Your task to perform on an android device: Show the shopping cart on newegg.com. Add "razer kraken" to the cart on newegg.com, then select checkout. Image 0: 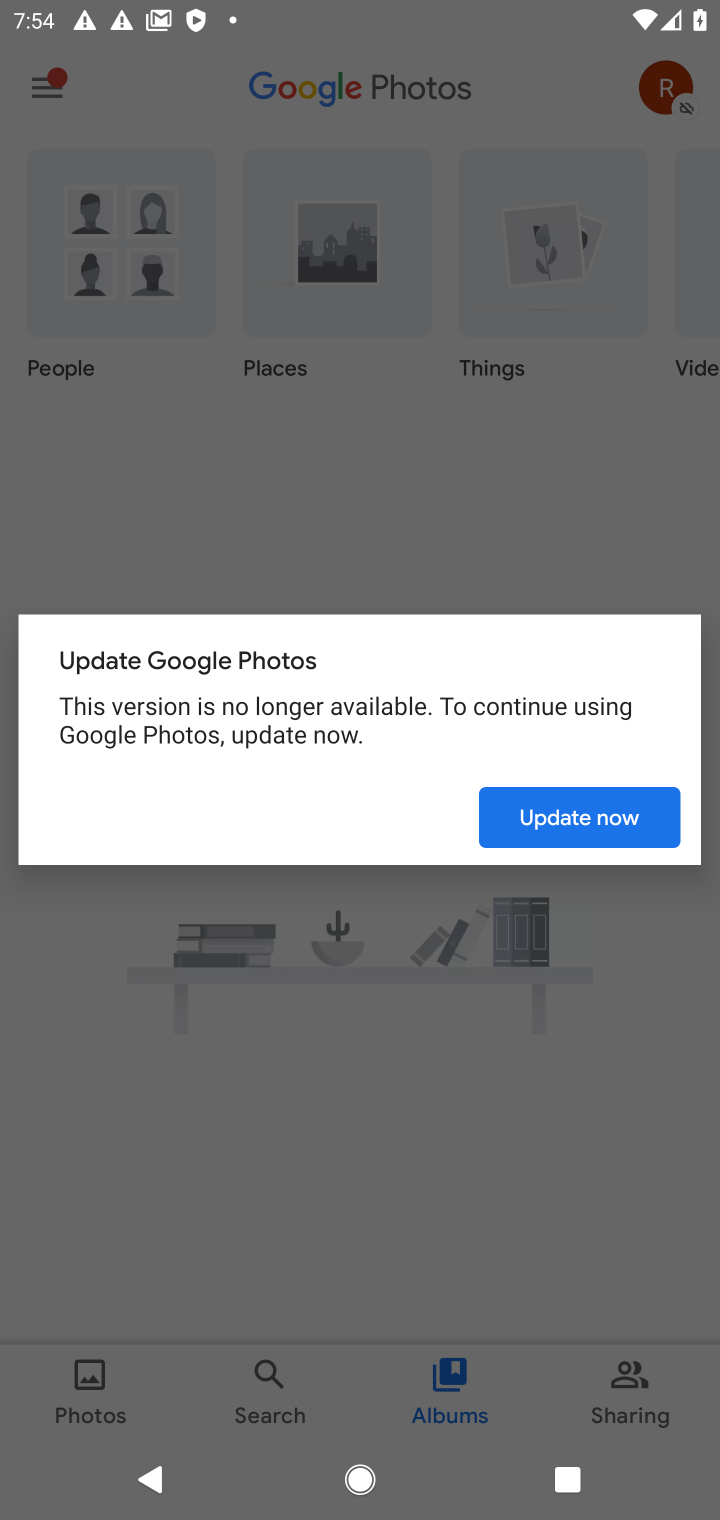
Step 0: press home button
Your task to perform on an android device: Show the shopping cart on newegg.com. Add "razer kraken" to the cart on newegg.com, then select checkout. Image 1: 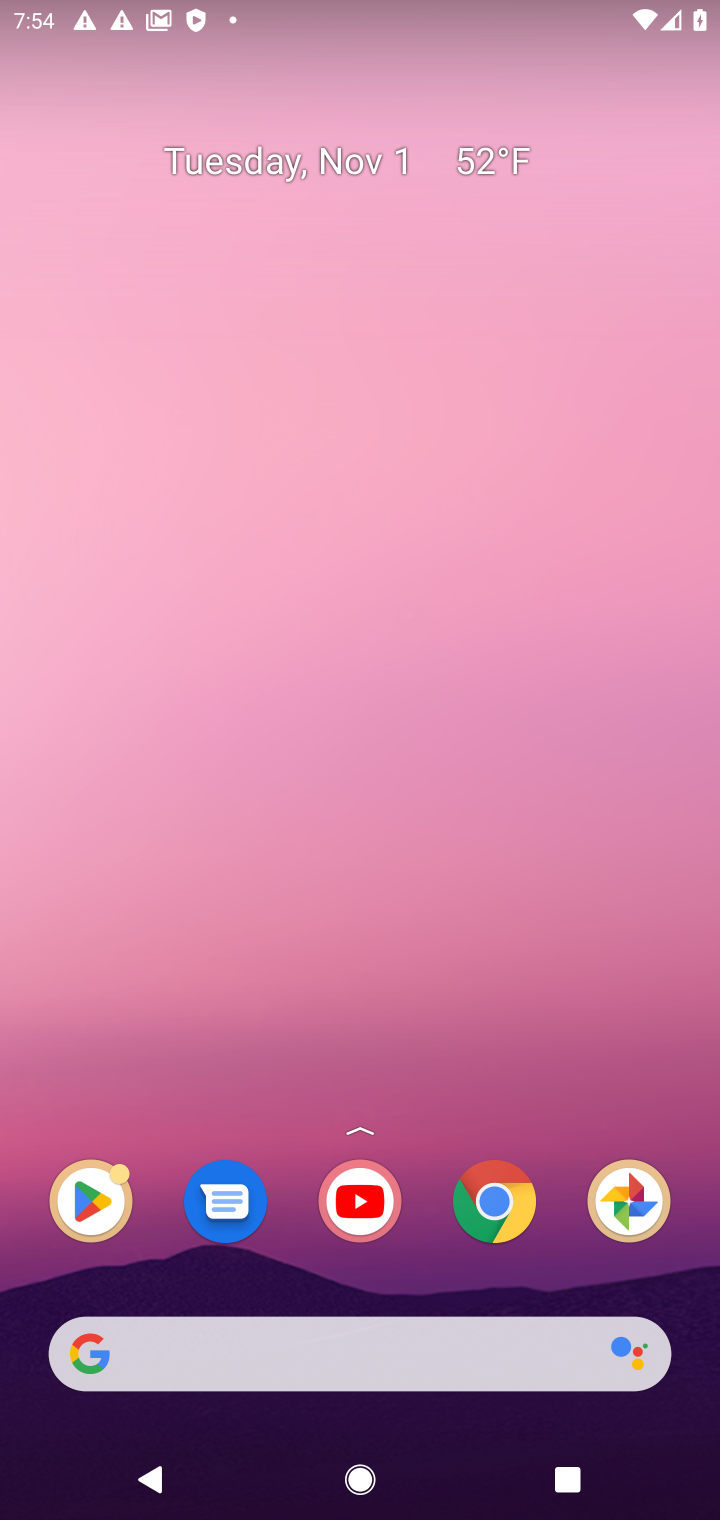
Step 1: click (299, 1372)
Your task to perform on an android device: Show the shopping cart on newegg.com. Add "razer kraken" to the cart on newegg.com, then select checkout. Image 2: 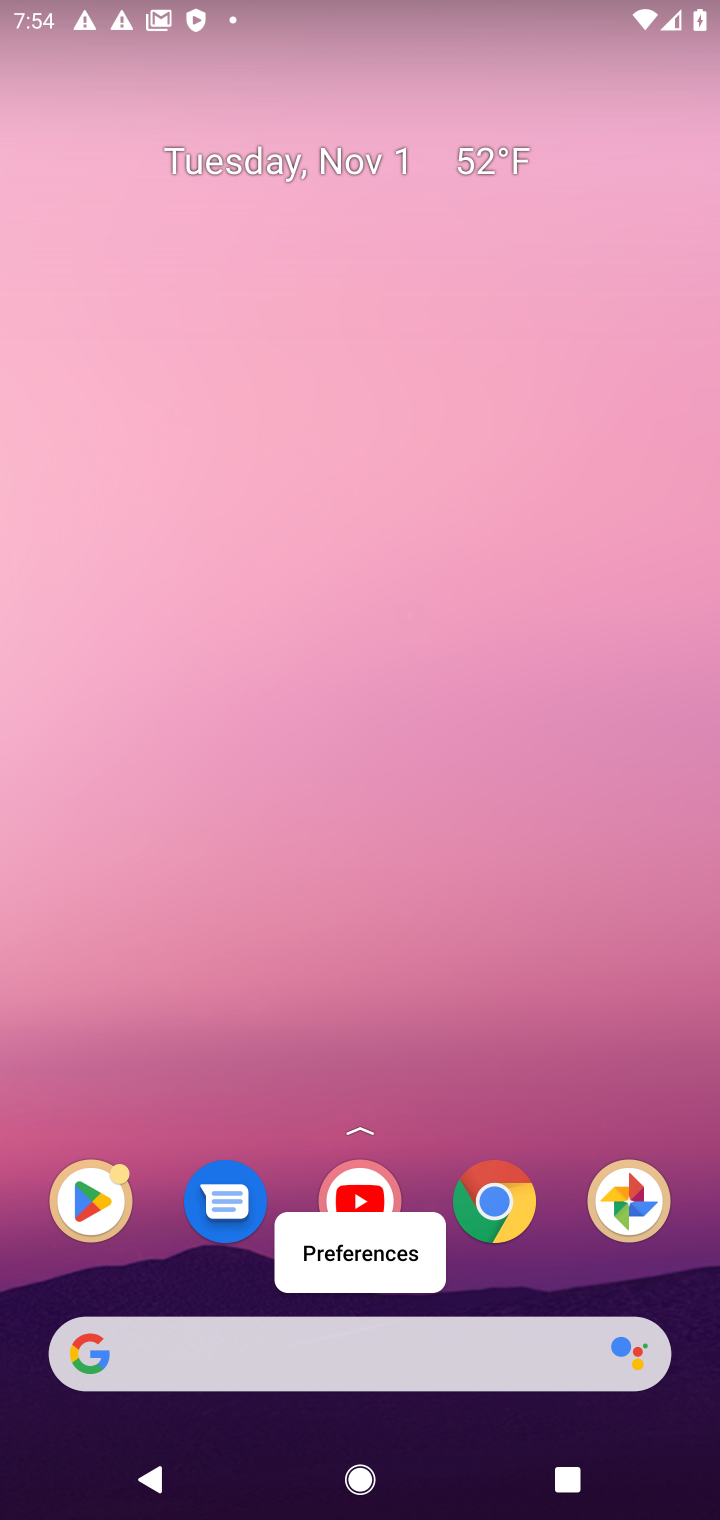
Step 2: click (539, 1365)
Your task to perform on an android device: Show the shopping cart on newegg.com. Add "razer kraken" to the cart on newegg.com, then select checkout. Image 3: 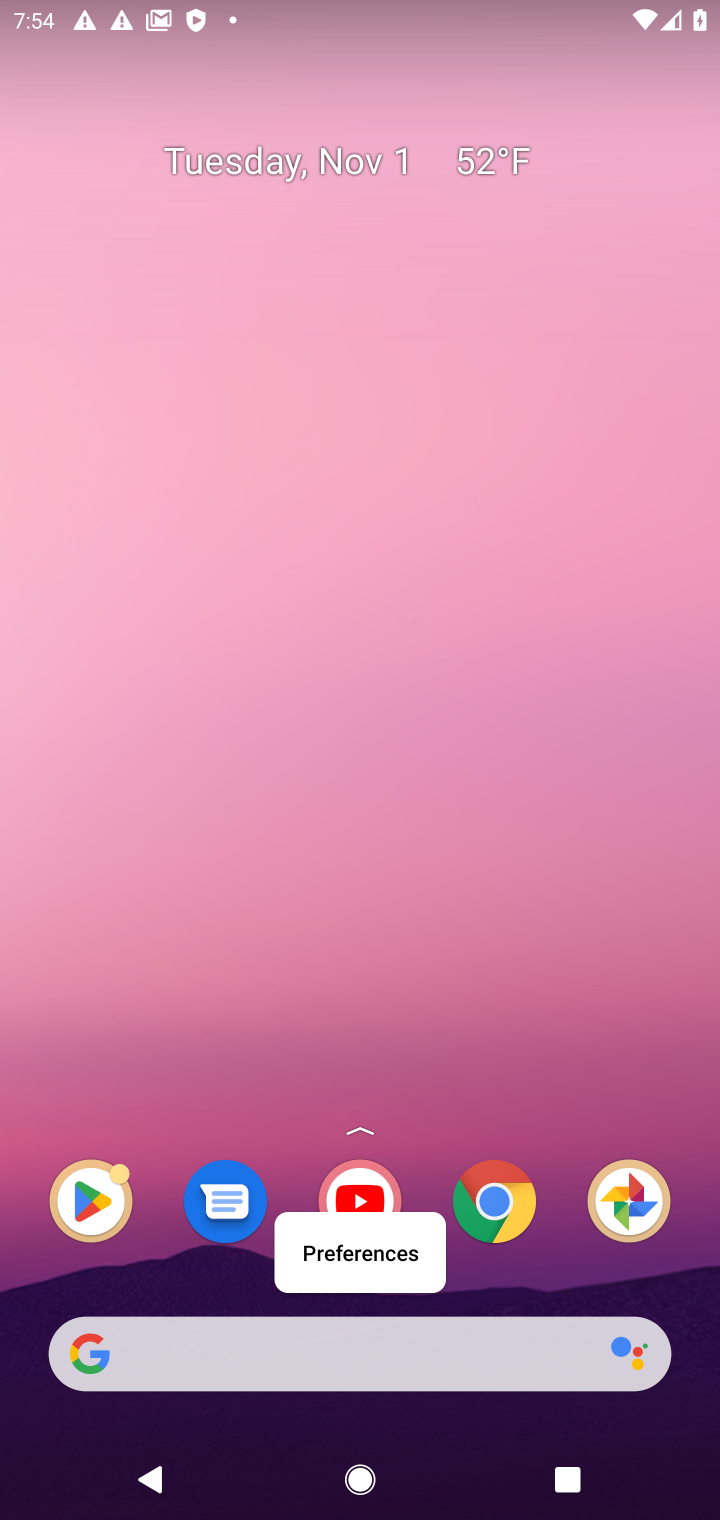
Step 3: click (489, 1202)
Your task to perform on an android device: Show the shopping cart on newegg.com. Add "razer kraken" to the cart on newegg.com, then select checkout. Image 4: 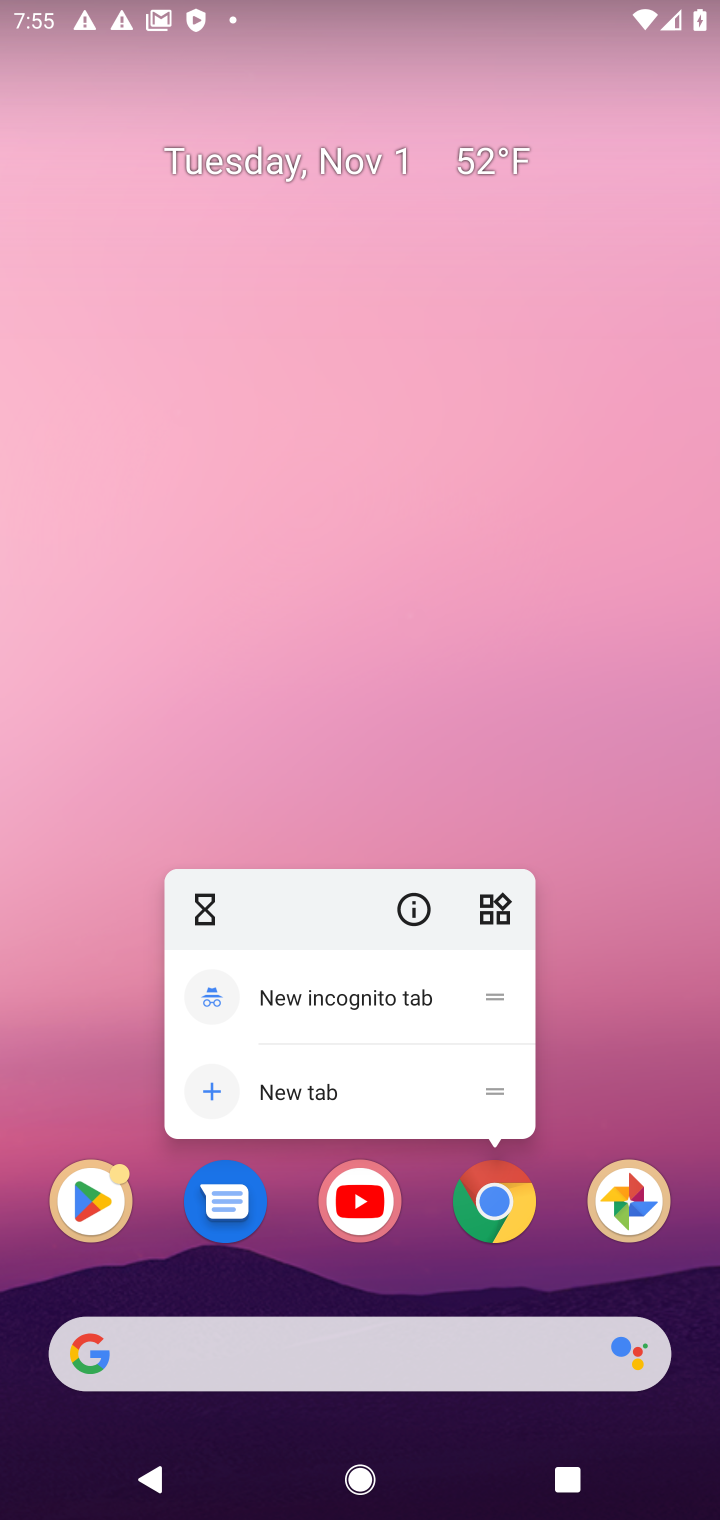
Step 4: click (489, 1202)
Your task to perform on an android device: Show the shopping cart on newegg.com. Add "razer kraken" to the cart on newegg.com, then select checkout. Image 5: 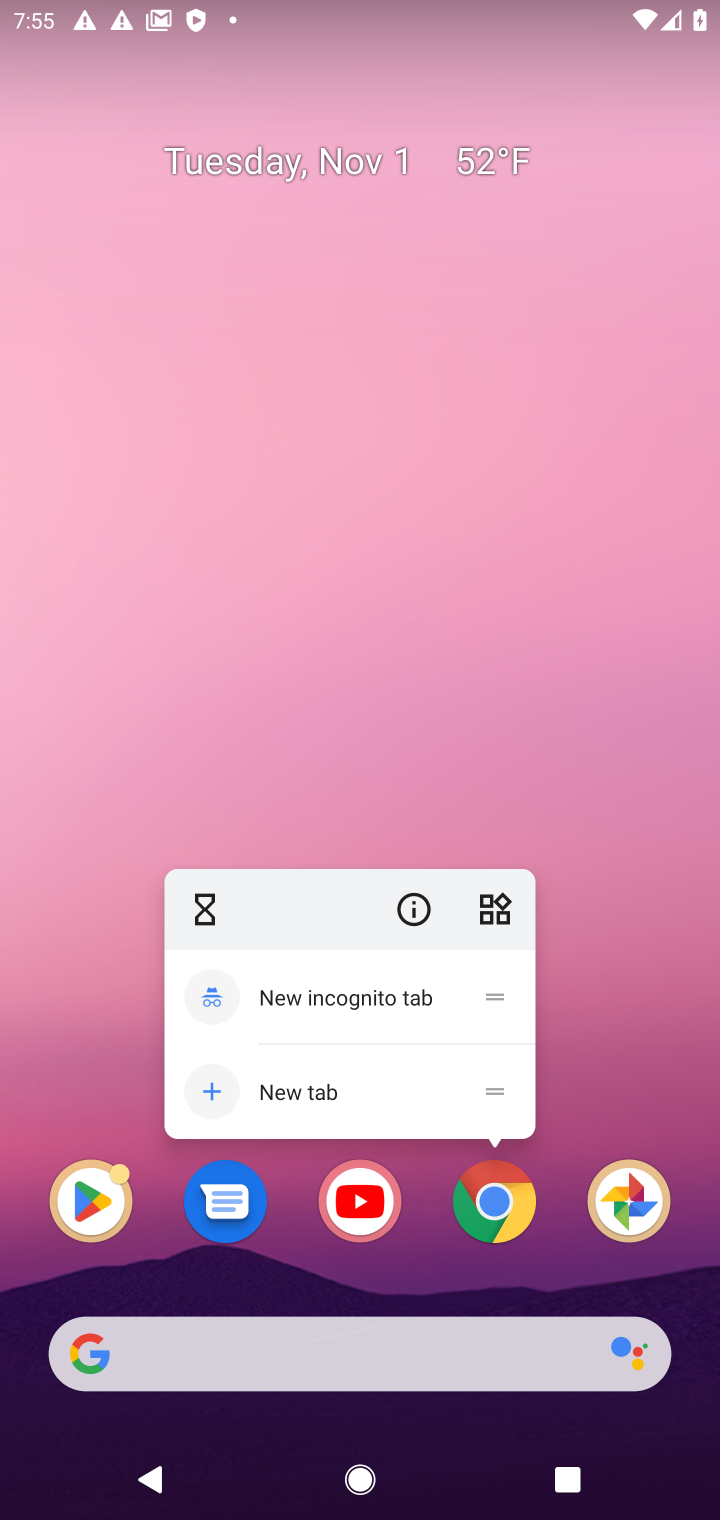
Step 5: click (499, 1212)
Your task to perform on an android device: Show the shopping cart on newegg.com. Add "razer kraken" to the cart on newegg.com, then select checkout. Image 6: 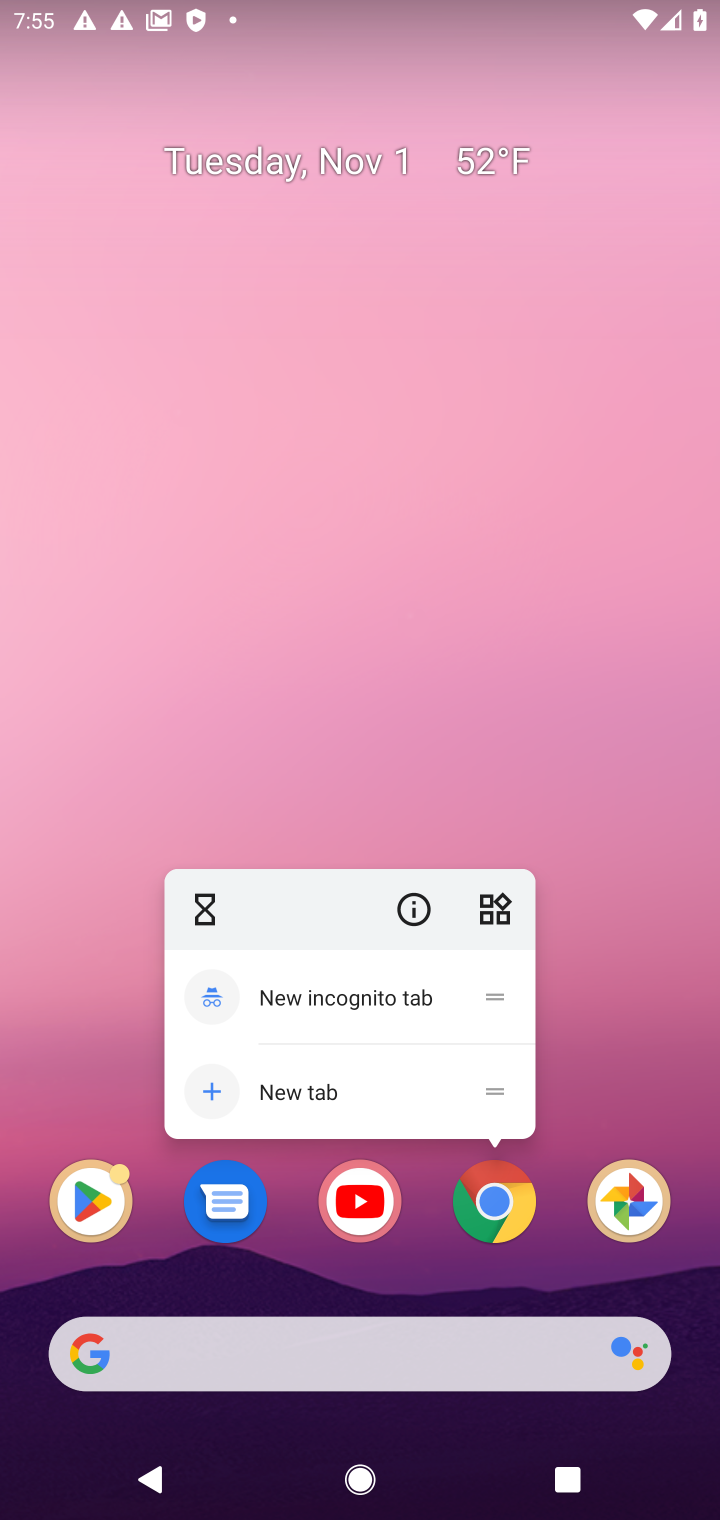
Step 6: click (481, 1210)
Your task to perform on an android device: Show the shopping cart on newegg.com. Add "razer kraken" to the cart on newegg.com, then select checkout. Image 7: 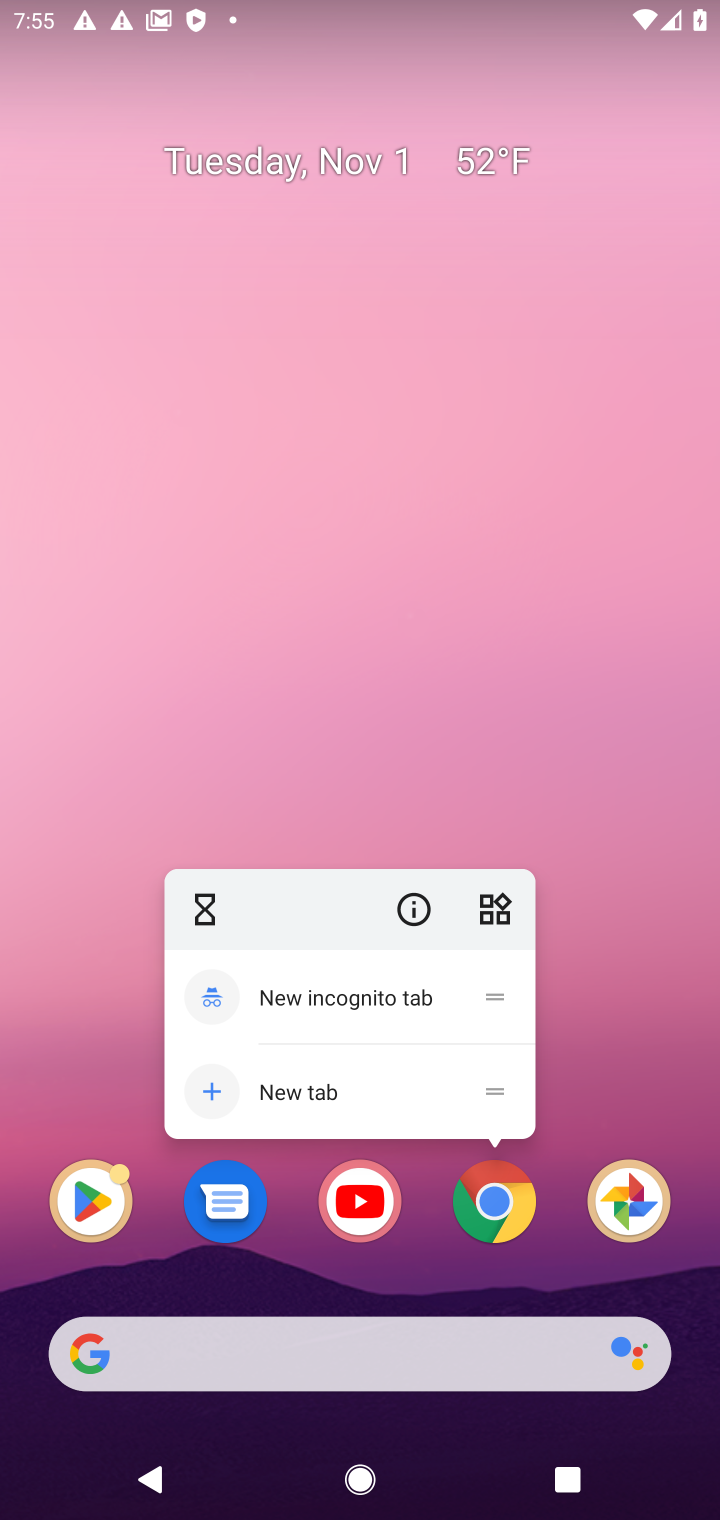
Step 7: click (481, 1207)
Your task to perform on an android device: Show the shopping cart on newegg.com. Add "razer kraken" to the cart on newegg.com, then select checkout. Image 8: 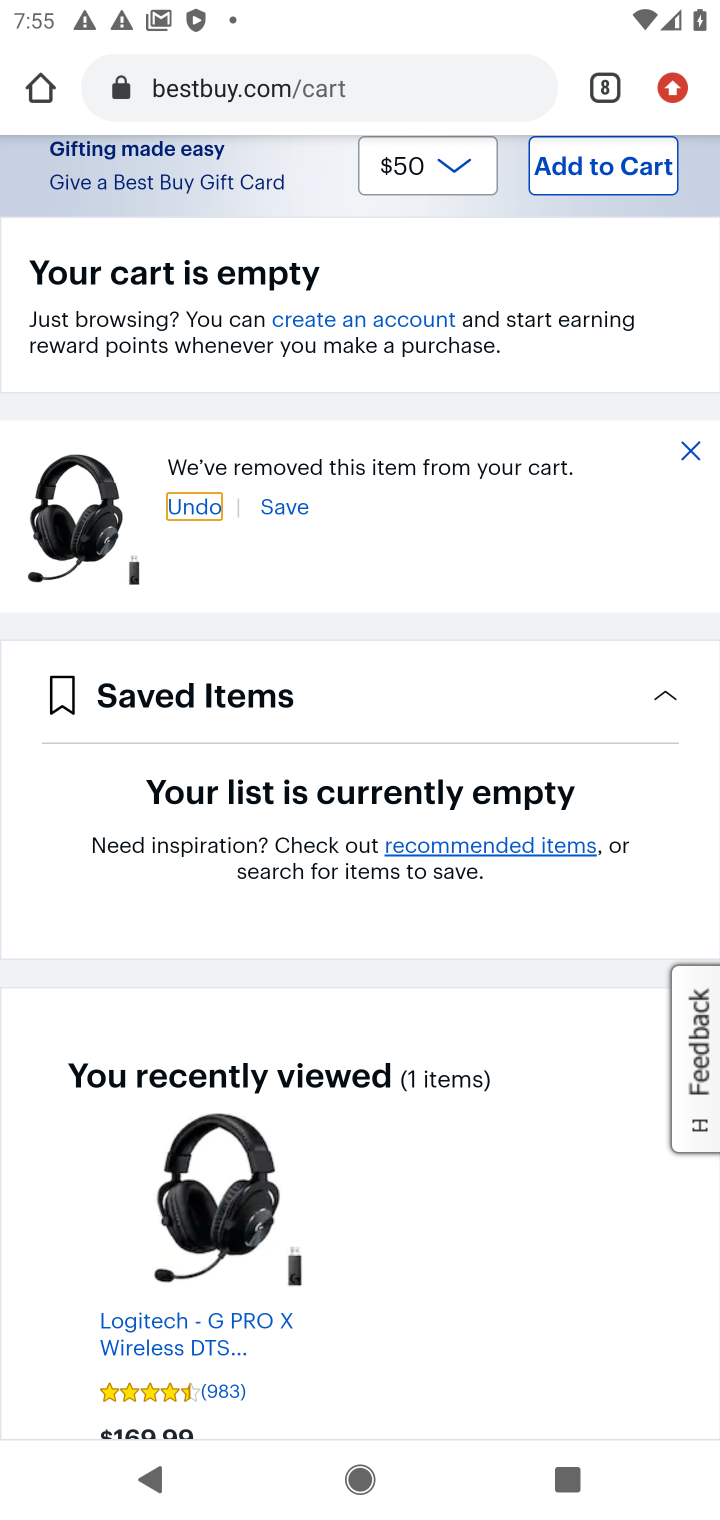
Step 8: click (278, 93)
Your task to perform on an android device: Show the shopping cart on newegg.com. Add "razer kraken" to the cart on newegg.com, then select checkout. Image 9: 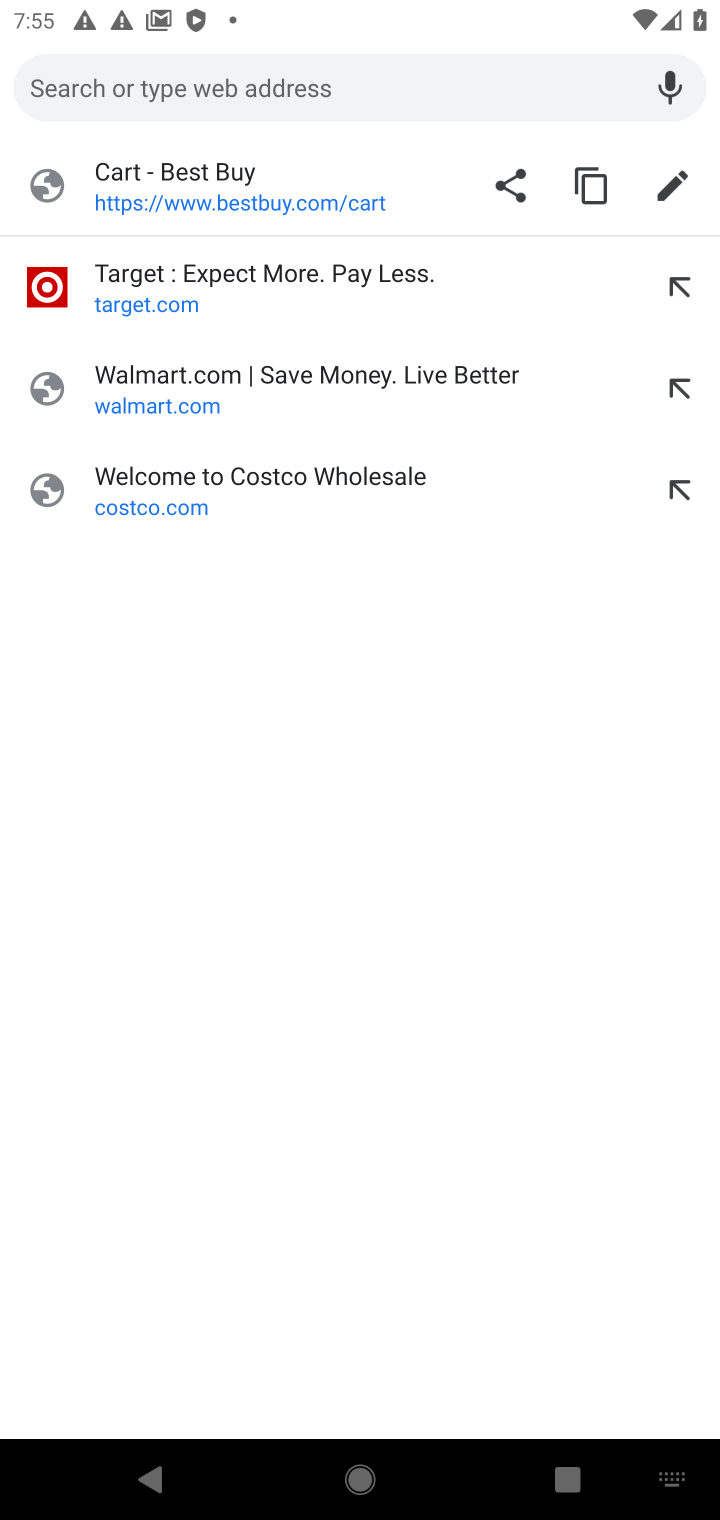
Step 9: type "newegg.com"
Your task to perform on an android device: Show the shopping cart on newegg.com. Add "razer kraken" to the cart on newegg.com, then select checkout. Image 10: 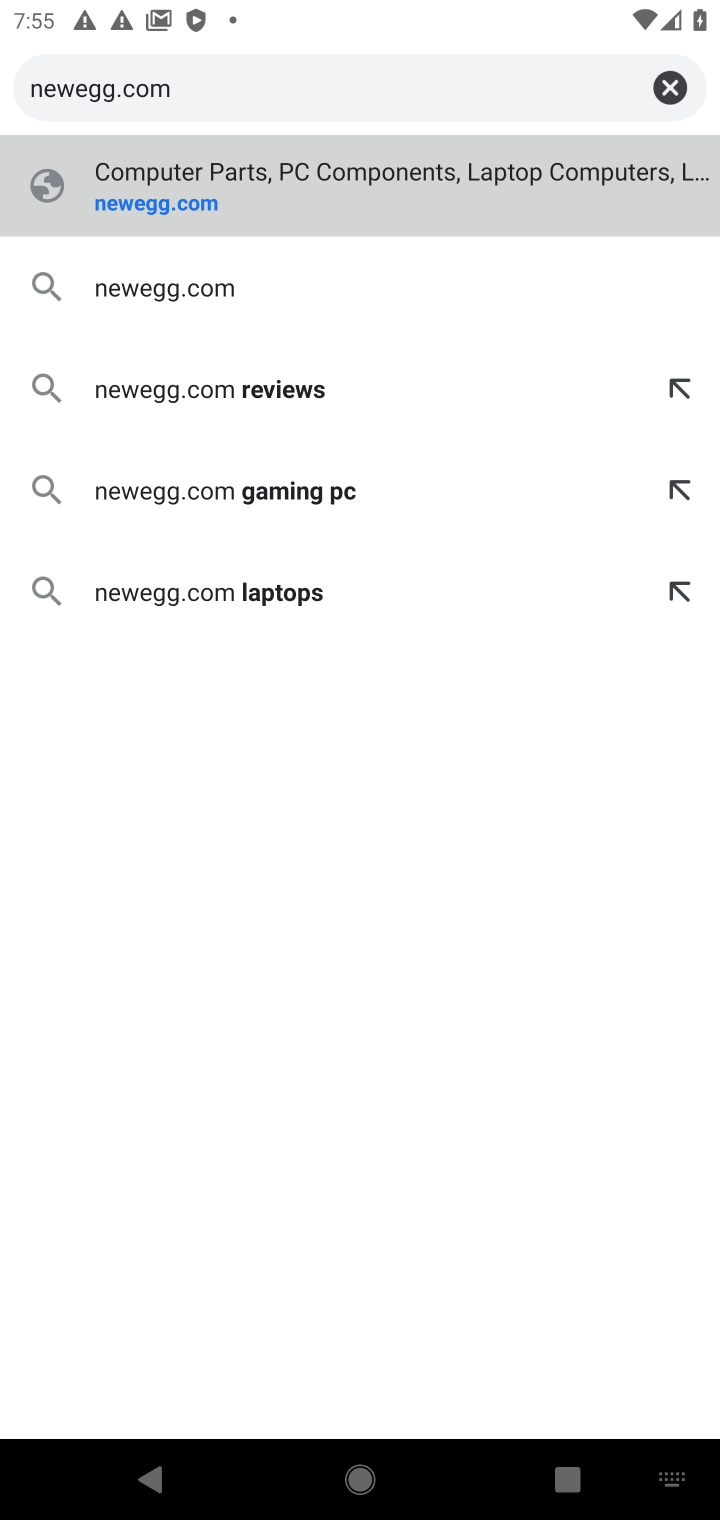
Step 10: press enter
Your task to perform on an android device: Show the shopping cart on newegg.com. Add "razer kraken" to the cart on newegg.com, then select checkout. Image 11: 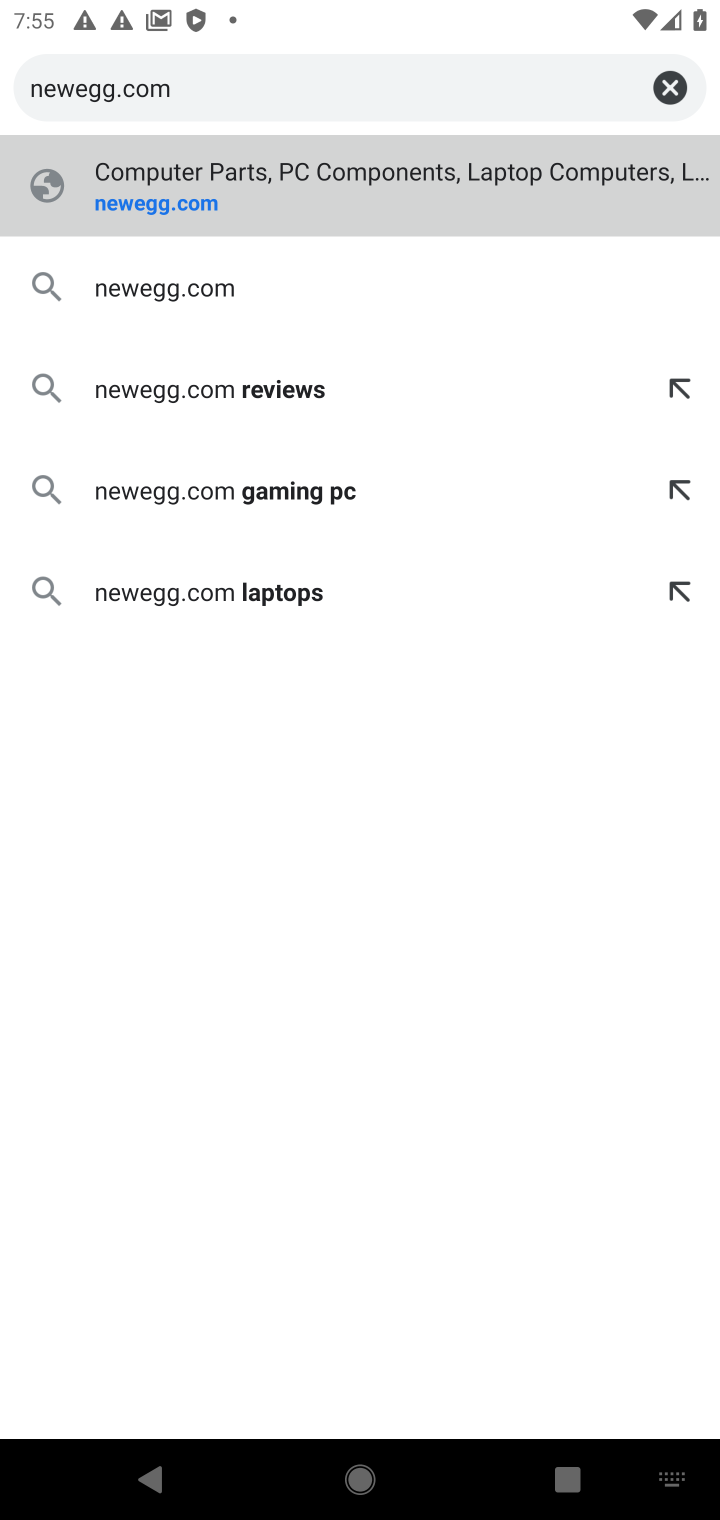
Step 11: type ""
Your task to perform on an android device: Show the shopping cart on newegg.com. Add "razer kraken" to the cart on newegg.com, then select checkout. Image 12: 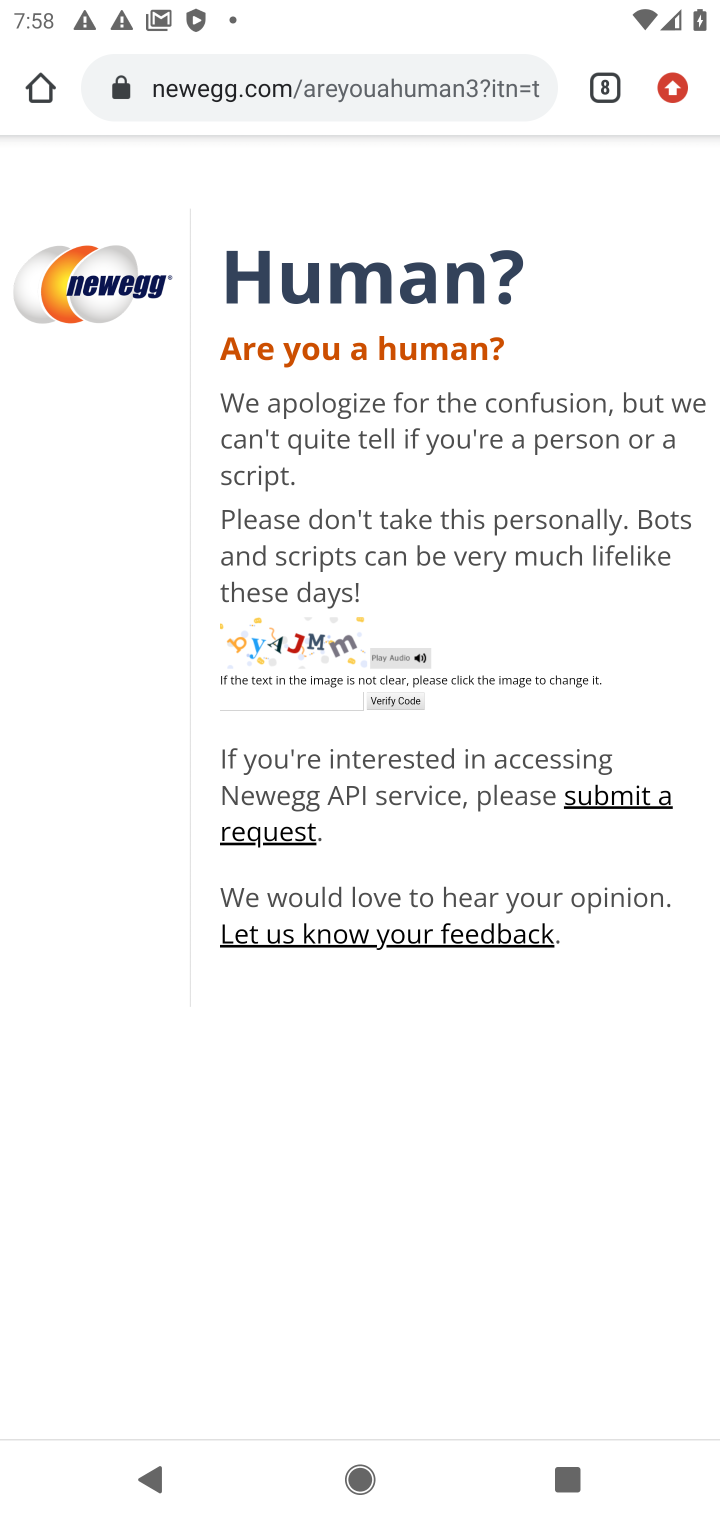
Step 12: task complete